Your task to perform on an android device: toggle pop-ups in chrome Image 0: 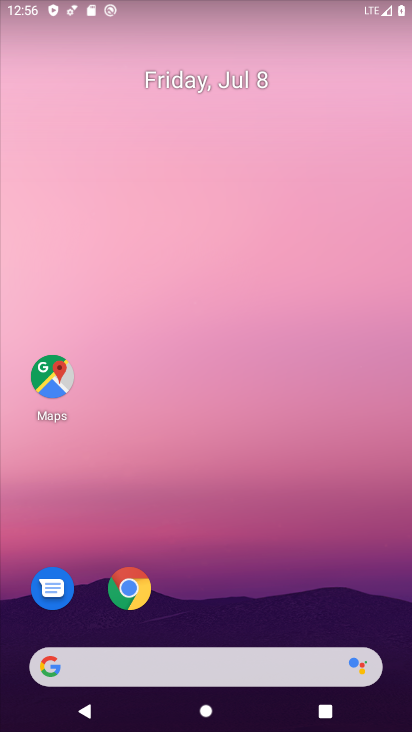
Step 0: drag from (264, 568) to (284, 5)
Your task to perform on an android device: toggle pop-ups in chrome Image 1: 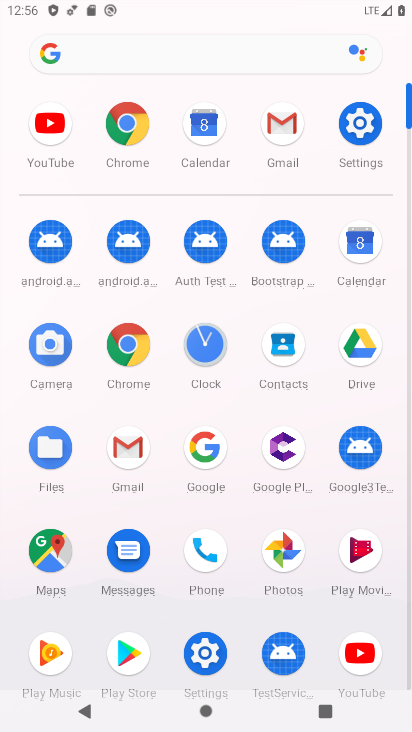
Step 1: click (129, 346)
Your task to perform on an android device: toggle pop-ups in chrome Image 2: 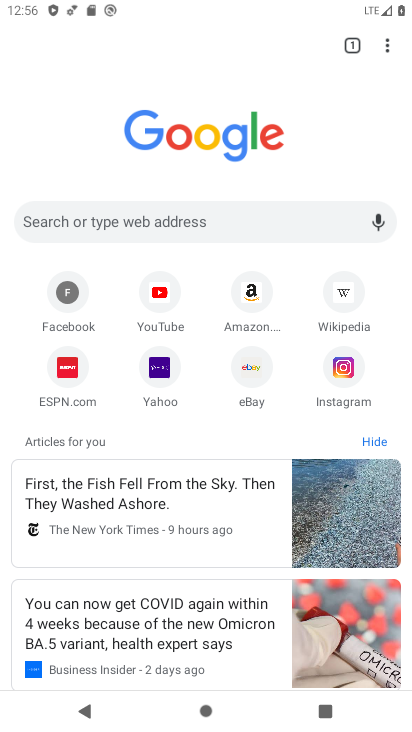
Step 2: click (382, 47)
Your task to perform on an android device: toggle pop-ups in chrome Image 3: 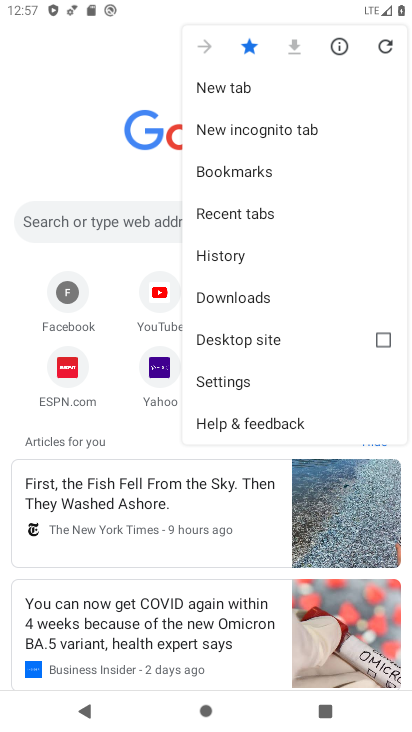
Step 3: click (241, 385)
Your task to perform on an android device: toggle pop-ups in chrome Image 4: 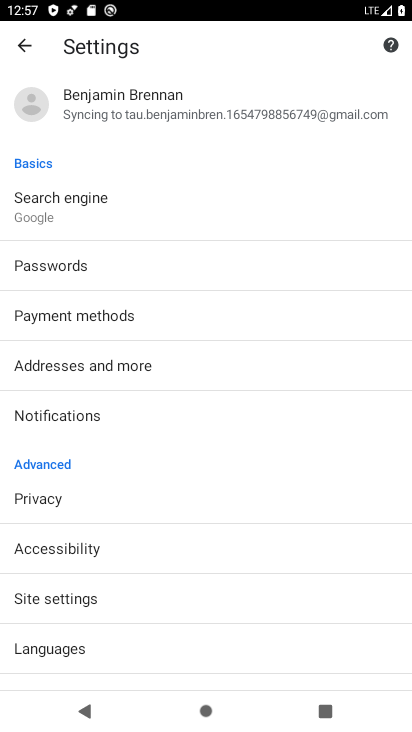
Step 4: drag from (150, 518) to (172, 235)
Your task to perform on an android device: toggle pop-ups in chrome Image 5: 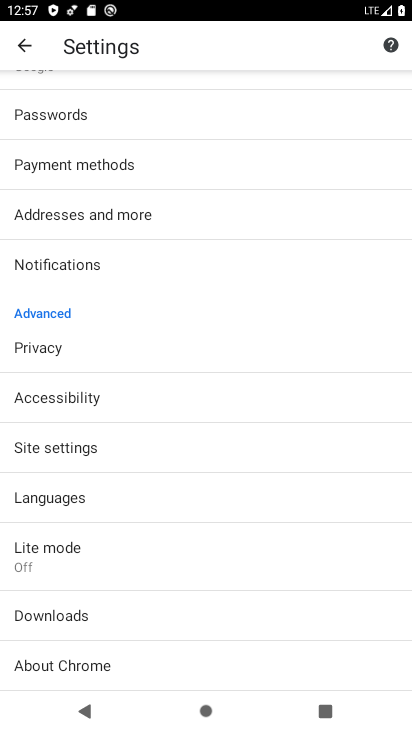
Step 5: click (73, 451)
Your task to perform on an android device: toggle pop-ups in chrome Image 6: 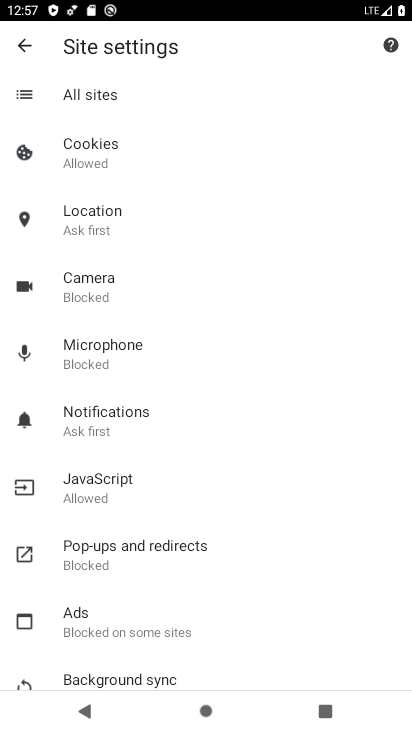
Step 6: click (122, 552)
Your task to perform on an android device: toggle pop-ups in chrome Image 7: 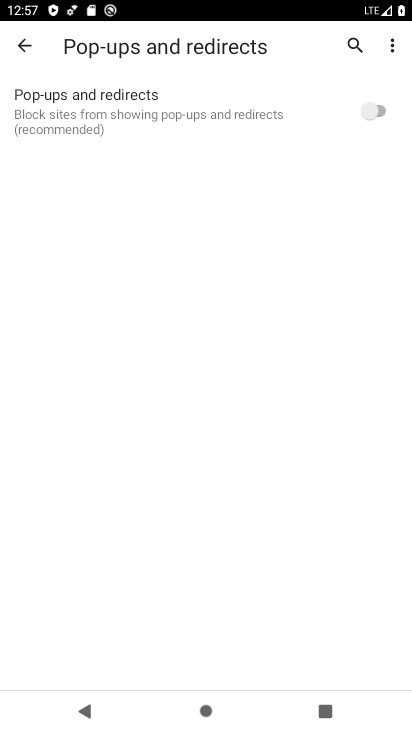
Step 7: click (354, 112)
Your task to perform on an android device: toggle pop-ups in chrome Image 8: 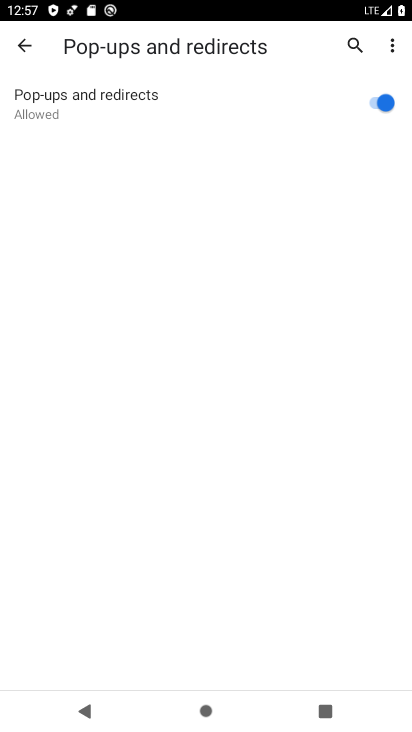
Step 8: task complete